Your task to perform on an android device: Go to settings Image 0: 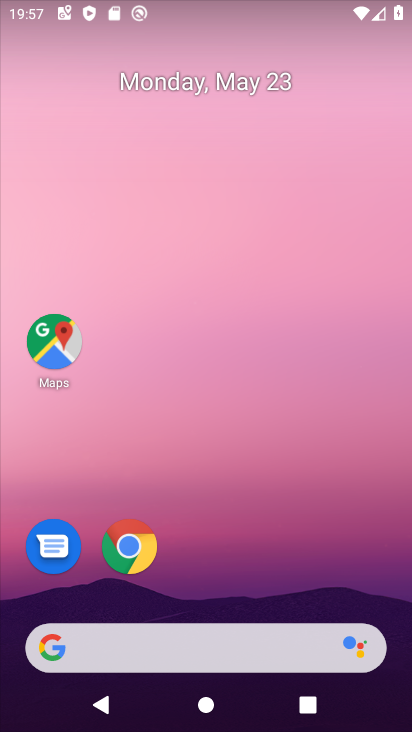
Step 0: drag from (381, 602) to (354, 319)
Your task to perform on an android device: Go to settings Image 1: 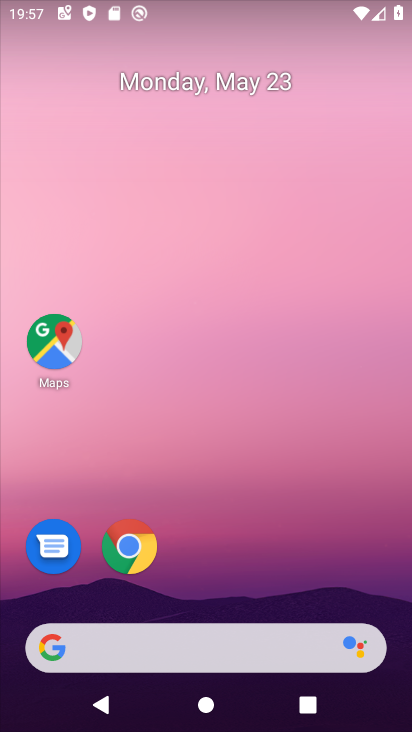
Step 1: drag from (354, 594) to (332, 179)
Your task to perform on an android device: Go to settings Image 2: 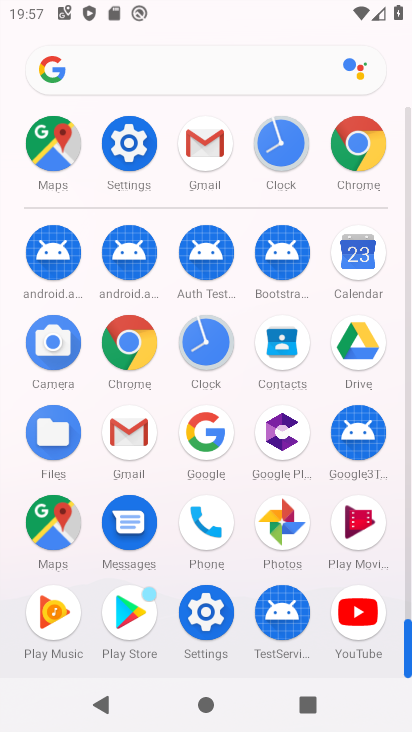
Step 2: click (200, 620)
Your task to perform on an android device: Go to settings Image 3: 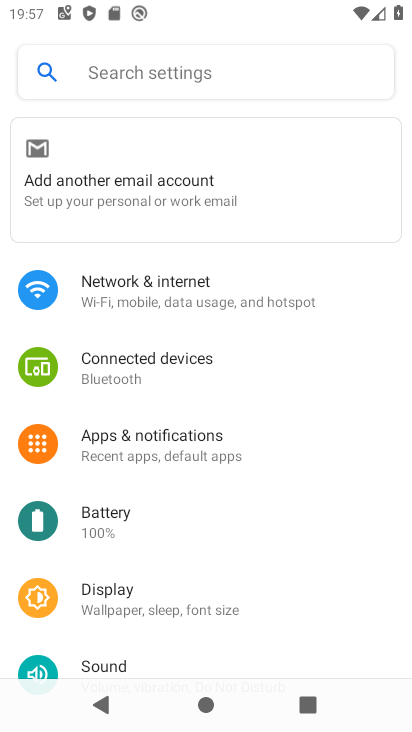
Step 3: task complete